Your task to perform on an android device: toggle javascript in the chrome app Image 0: 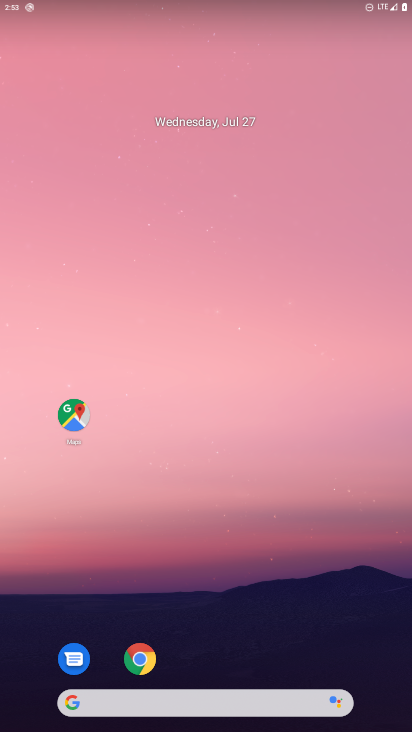
Step 0: drag from (248, 633) to (319, 246)
Your task to perform on an android device: toggle javascript in the chrome app Image 1: 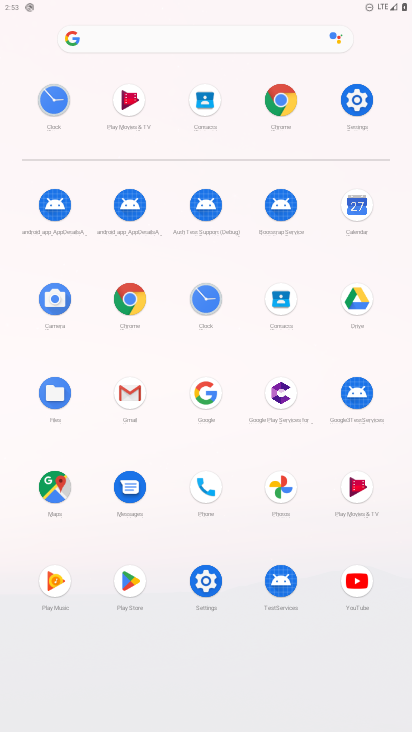
Step 1: drag from (244, 67) to (247, 639)
Your task to perform on an android device: toggle javascript in the chrome app Image 2: 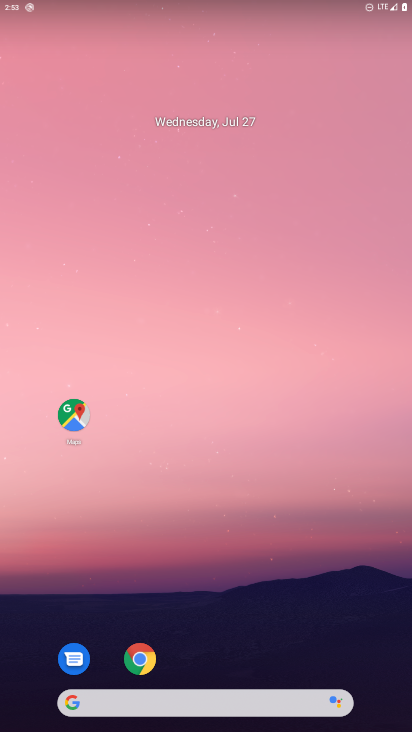
Step 2: drag from (245, 564) to (283, 249)
Your task to perform on an android device: toggle javascript in the chrome app Image 3: 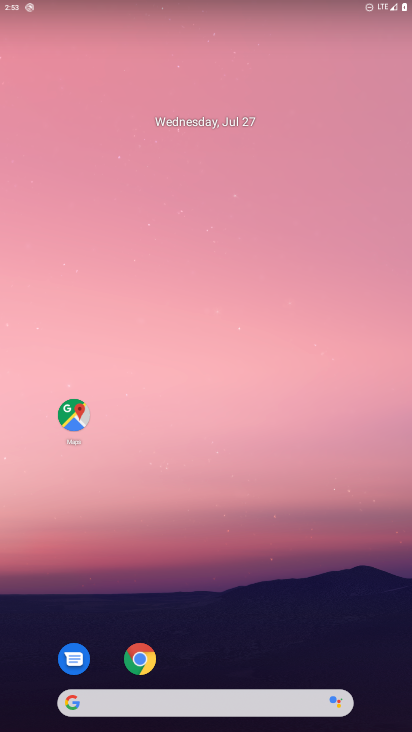
Step 3: drag from (209, 647) to (242, 404)
Your task to perform on an android device: toggle javascript in the chrome app Image 4: 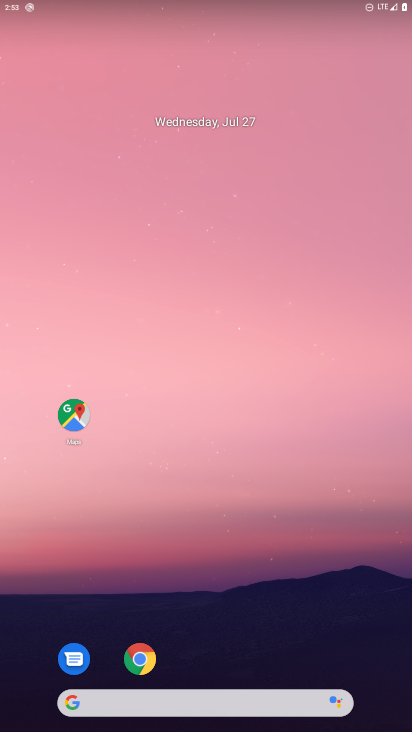
Step 4: drag from (224, 678) to (342, 203)
Your task to perform on an android device: toggle javascript in the chrome app Image 5: 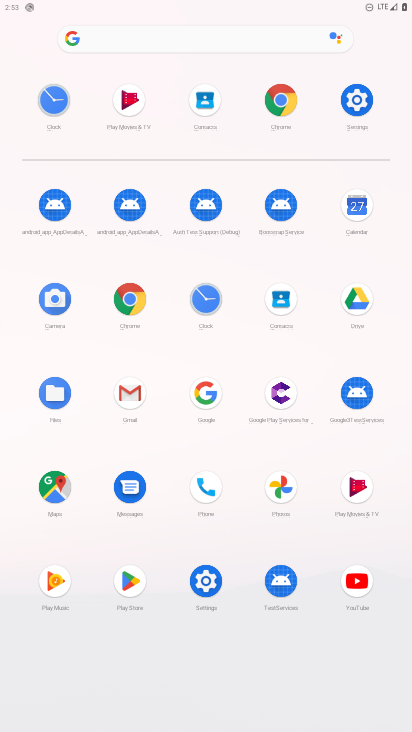
Step 5: click (123, 317)
Your task to perform on an android device: toggle javascript in the chrome app Image 6: 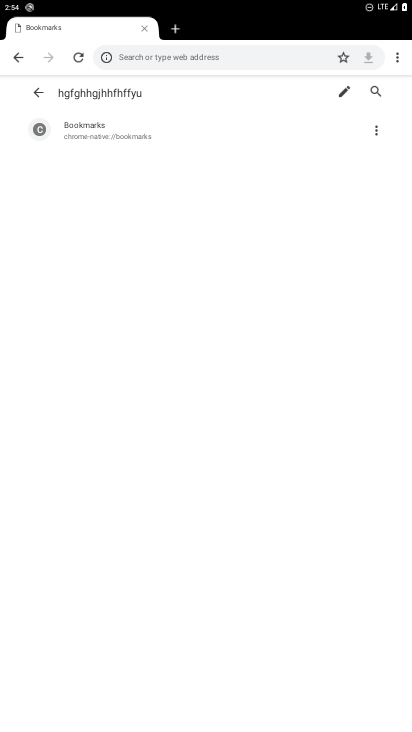
Step 6: click (142, 31)
Your task to perform on an android device: toggle javascript in the chrome app Image 7: 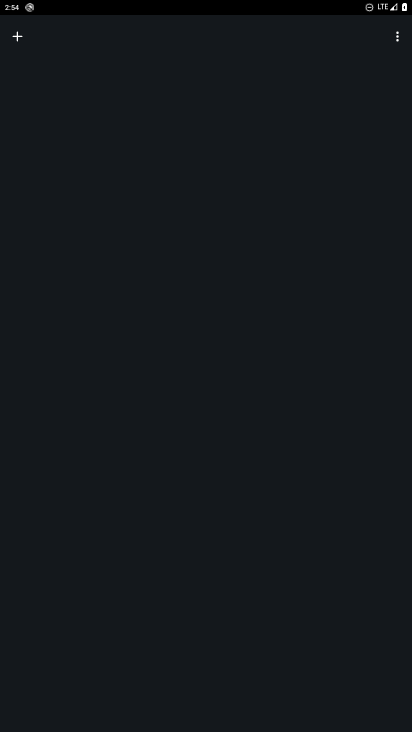
Step 7: click (397, 34)
Your task to perform on an android device: toggle javascript in the chrome app Image 8: 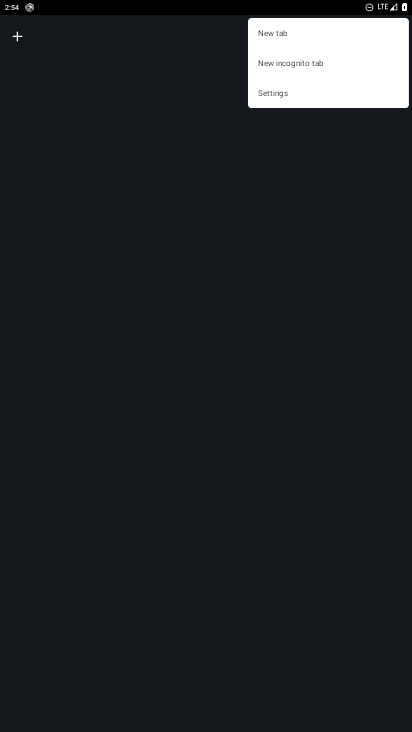
Step 8: click (295, 91)
Your task to perform on an android device: toggle javascript in the chrome app Image 9: 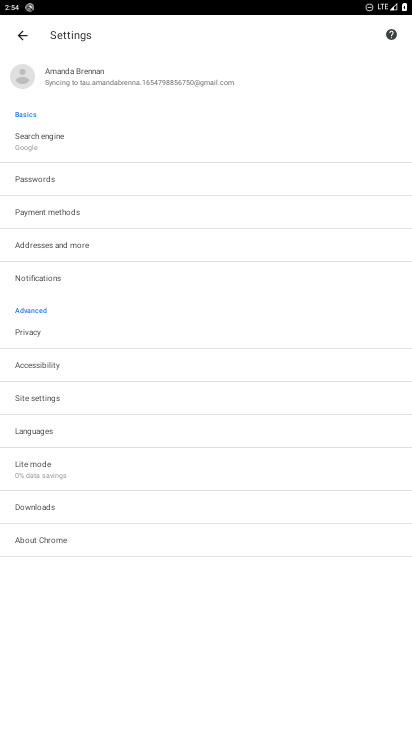
Step 9: click (62, 391)
Your task to perform on an android device: toggle javascript in the chrome app Image 10: 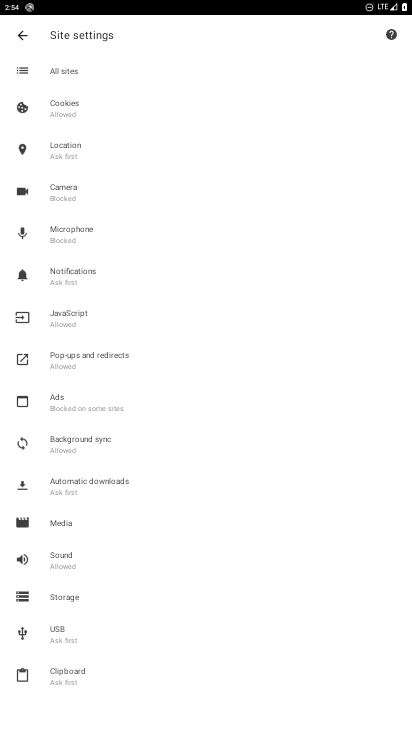
Step 10: click (129, 326)
Your task to perform on an android device: toggle javascript in the chrome app Image 11: 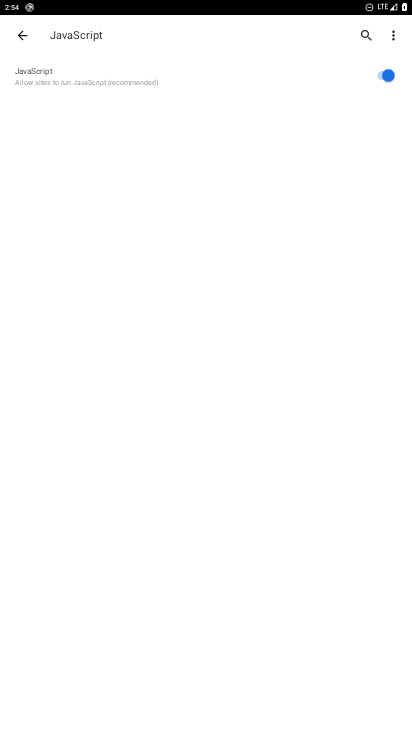
Step 11: click (385, 72)
Your task to perform on an android device: toggle javascript in the chrome app Image 12: 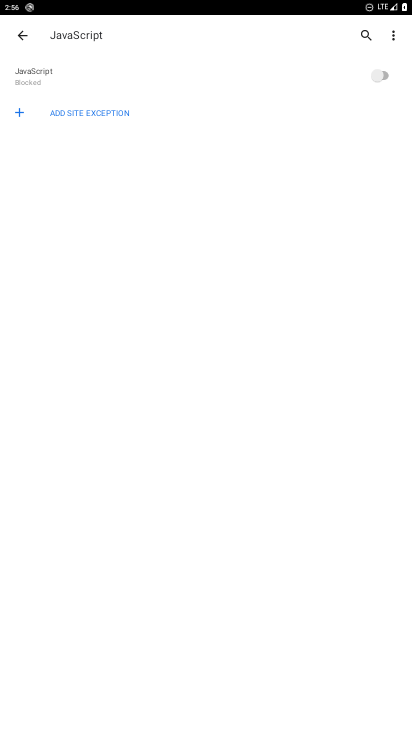
Step 12: click (247, 303)
Your task to perform on an android device: toggle javascript in the chrome app Image 13: 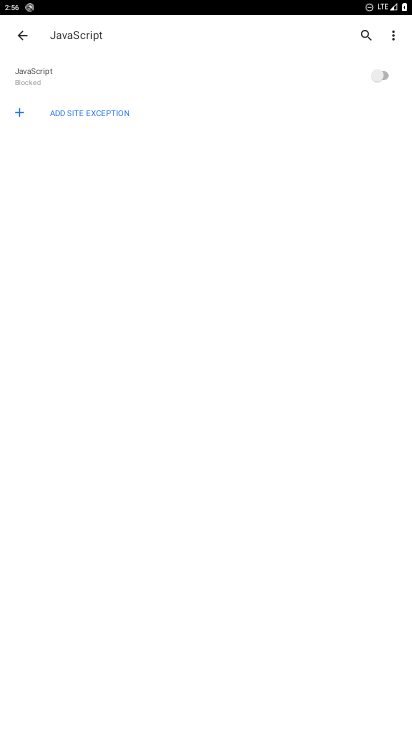
Step 13: task complete